Your task to perform on an android device: check out phone information Image 0: 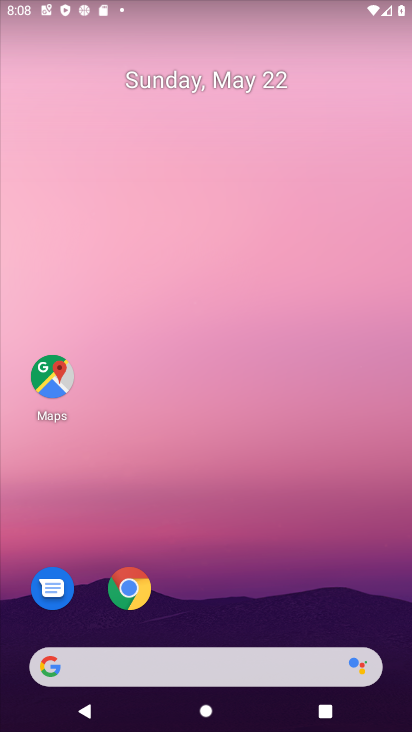
Step 0: drag from (277, 596) to (168, 42)
Your task to perform on an android device: check out phone information Image 1: 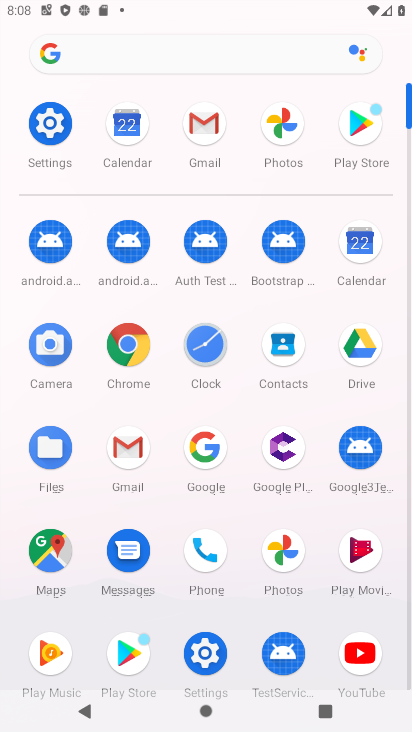
Step 1: click (51, 111)
Your task to perform on an android device: check out phone information Image 2: 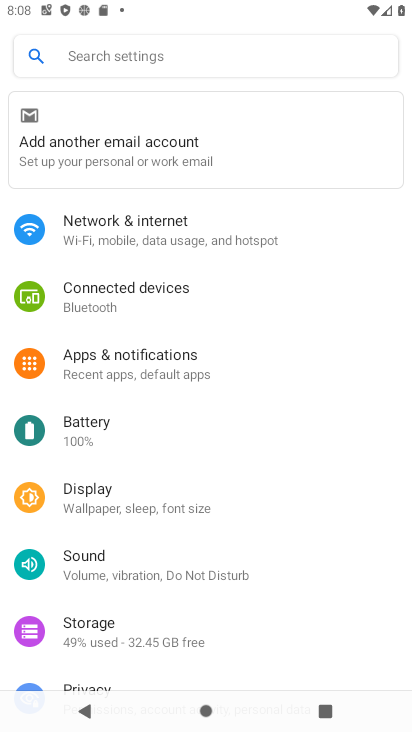
Step 2: drag from (261, 593) to (300, 38)
Your task to perform on an android device: check out phone information Image 3: 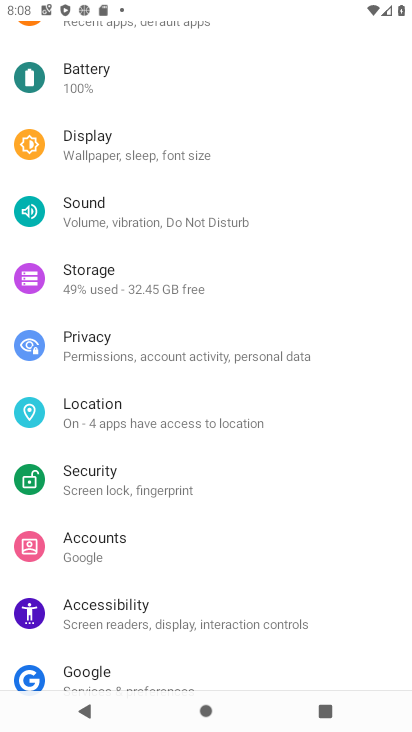
Step 3: drag from (261, 539) to (207, 162)
Your task to perform on an android device: check out phone information Image 4: 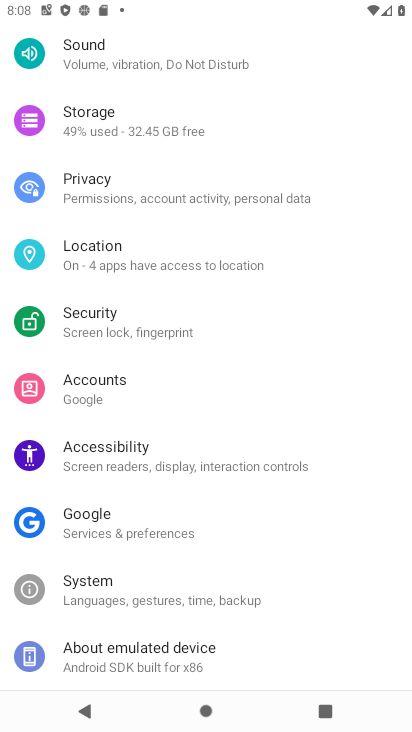
Step 4: click (102, 641)
Your task to perform on an android device: check out phone information Image 5: 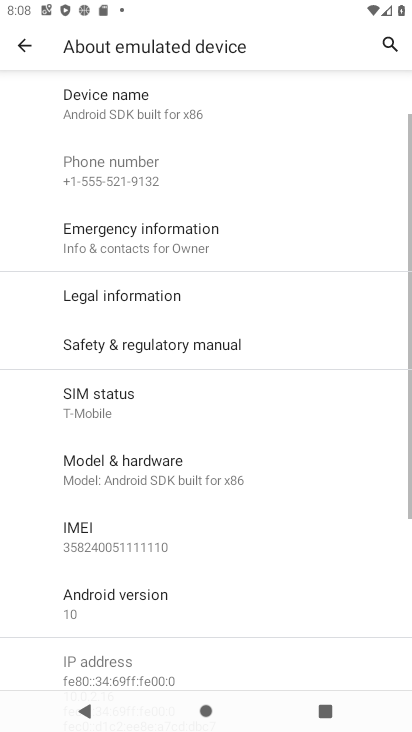
Step 5: task complete